Your task to perform on an android device: open chrome and create a bookmark for the current page Image 0: 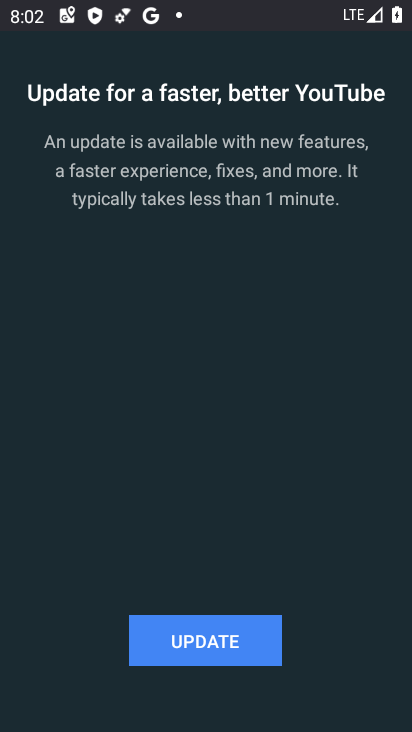
Step 0: press home button
Your task to perform on an android device: open chrome and create a bookmark for the current page Image 1: 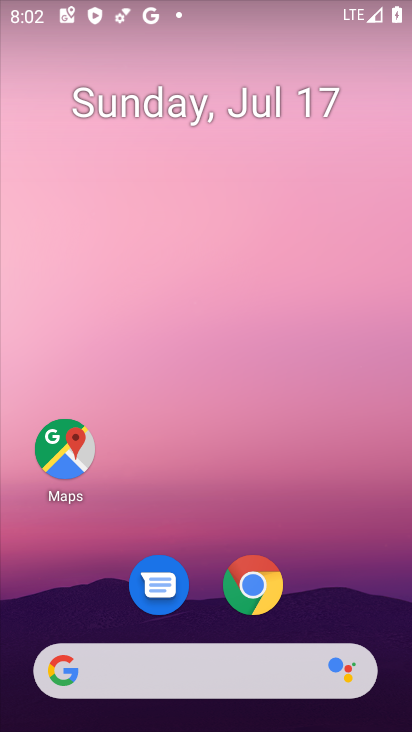
Step 1: click (255, 587)
Your task to perform on an android device: open chrome and create a bookmark for the current page Image 2: 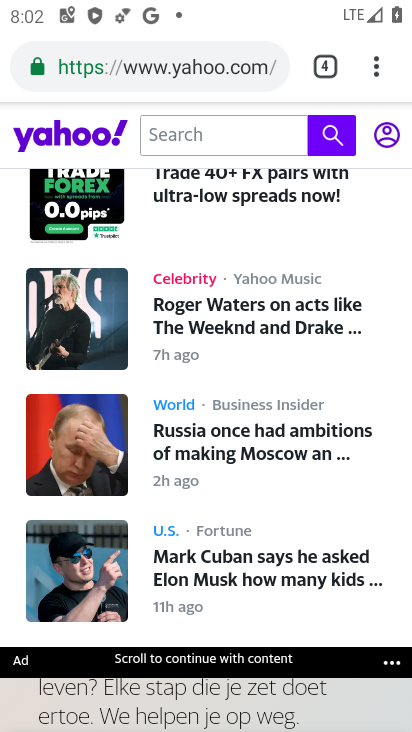
Step 2: click (378, 65)
Your task to perform on an android device: open chrome and create a bookmark for the current page Image 3: 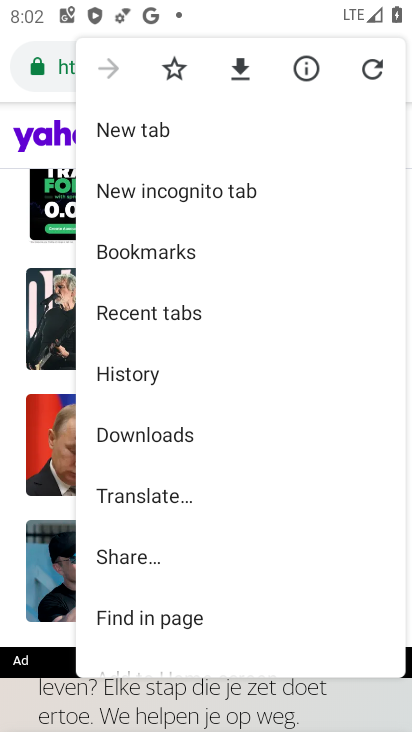
Step 3: click (170, 72)
Your task to perform on an android device: open chrome and create a bookmark for the current page Image 4: 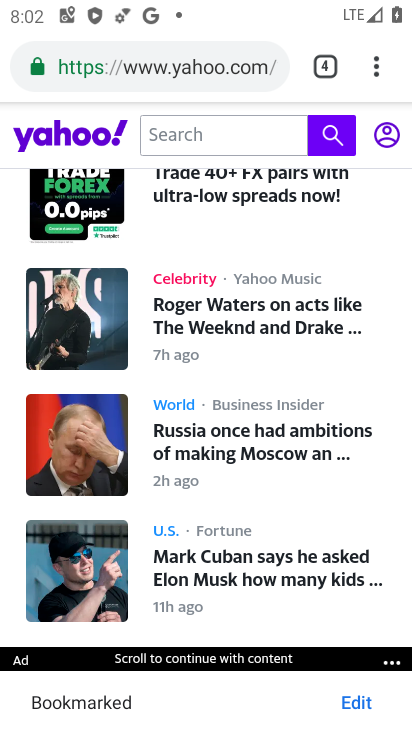
Step 4: task complete